Your task to perform on an android device: delete the emails in spam in the gmail app Image 0: 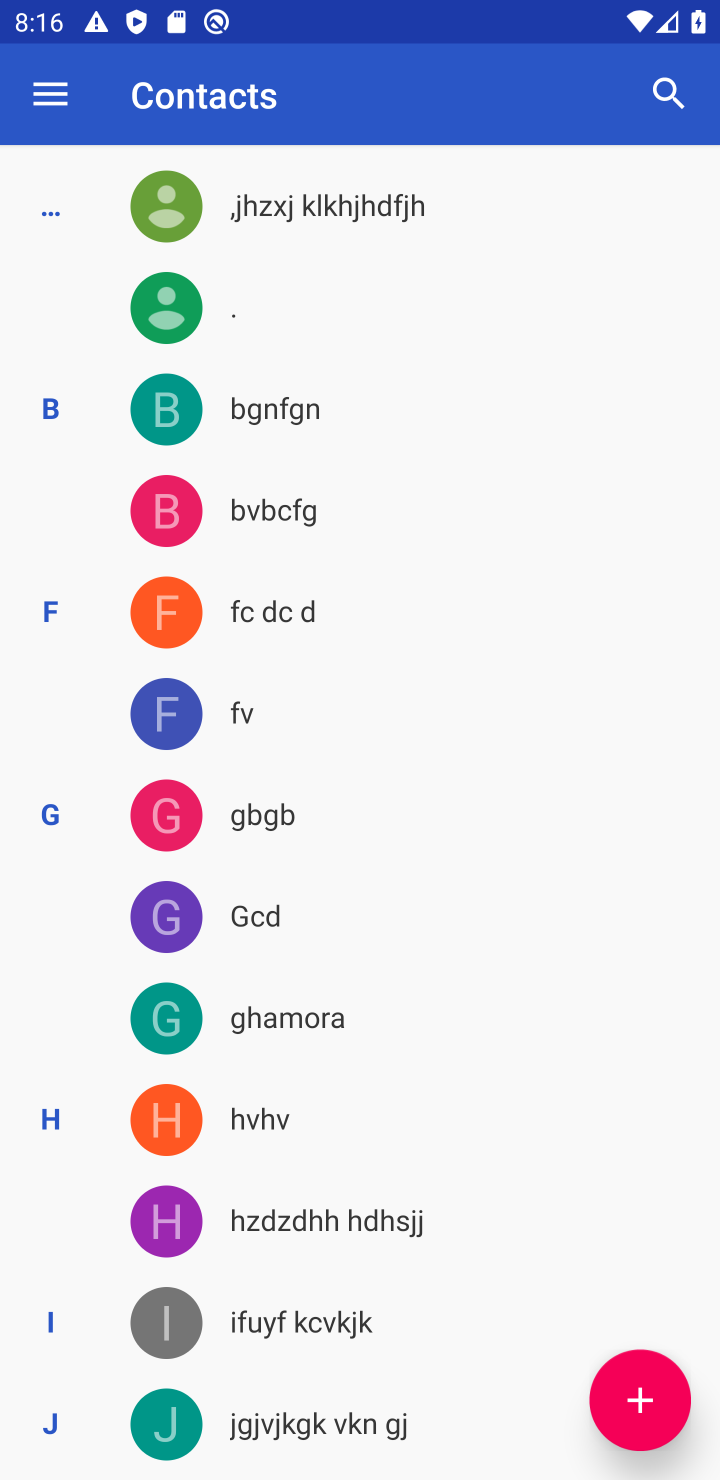
Step 0: press home button
Your task to perform on an android device: delete the emails in spam in the gmail app Image 1: 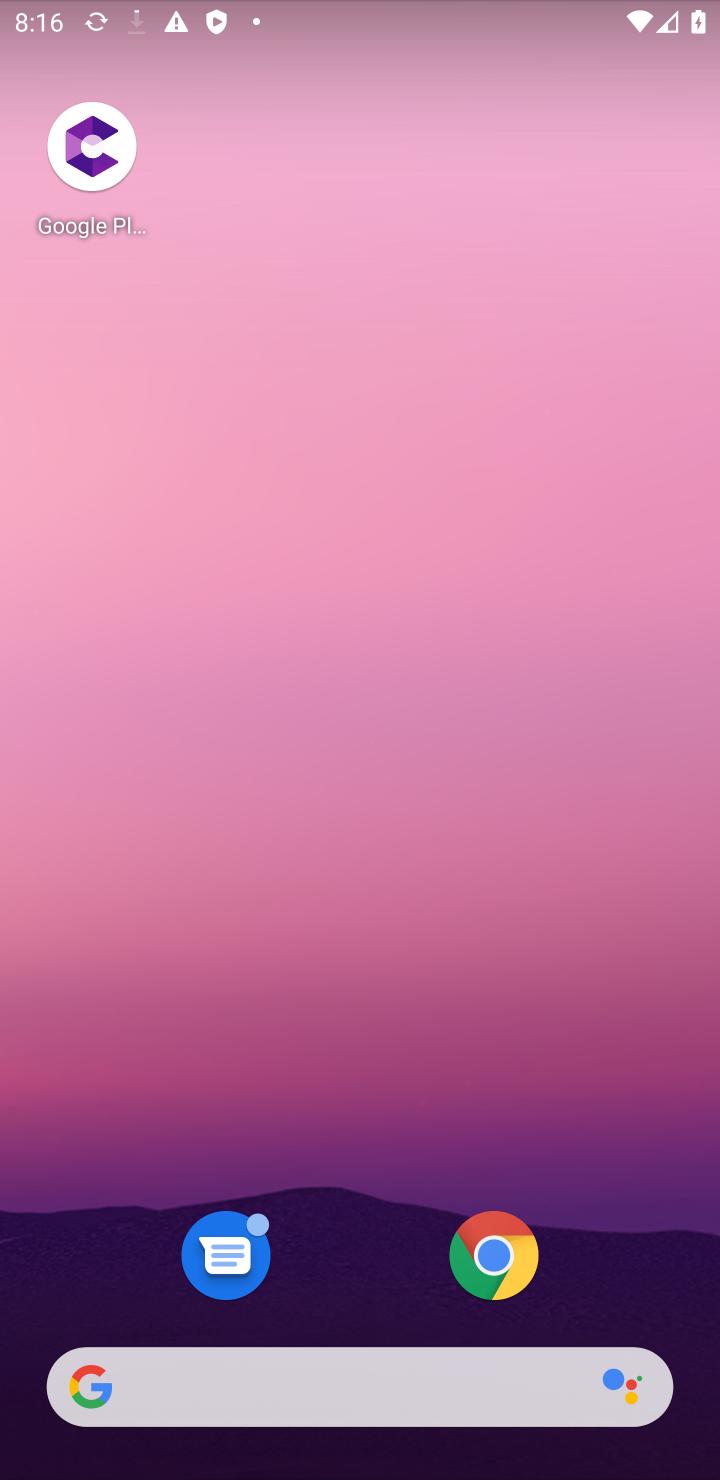
Step 1: drag from (357, 1307) to (393, 144)
Your task to perform on an android device: delete the emails in spam in the gmail app Image 2: 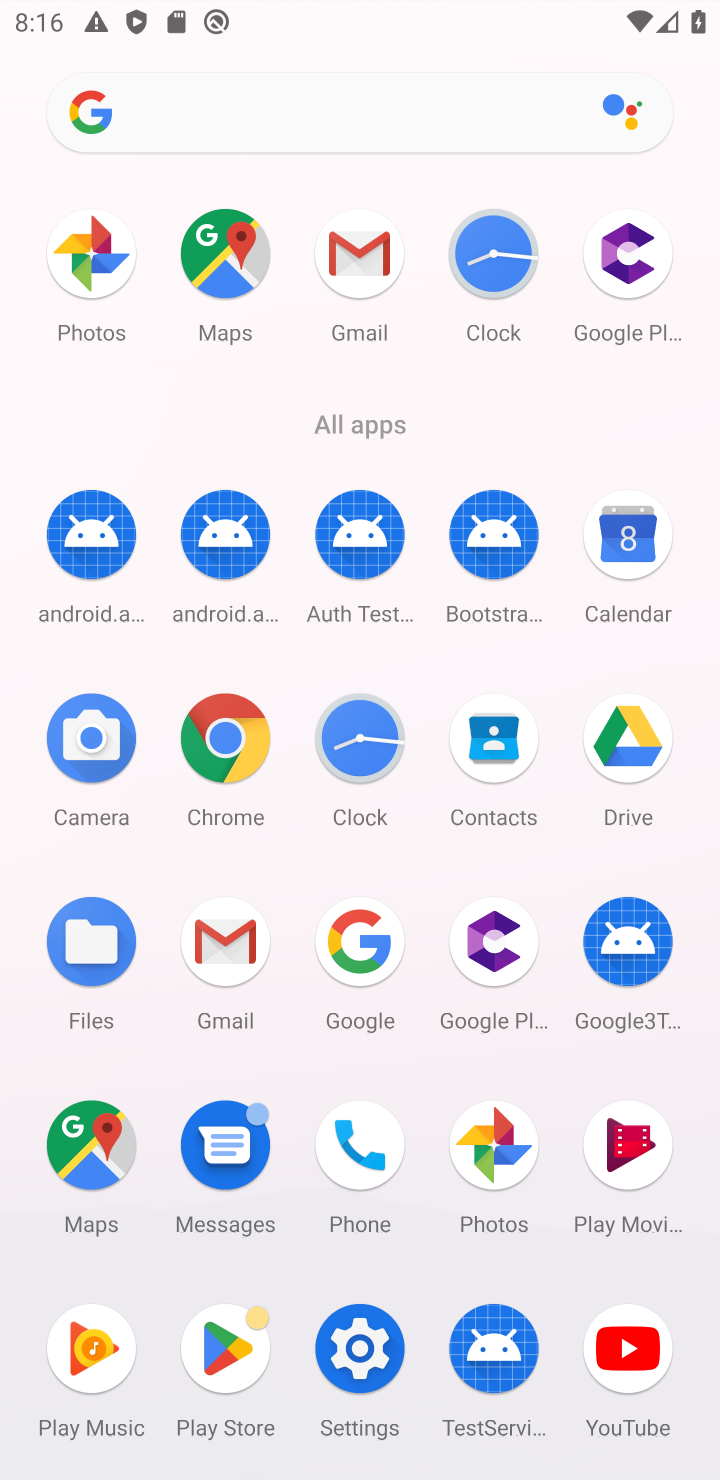
Step 2: click (222, 941)
Your task to perform on an android device: delete the emails in spam in the gmail app Image 3: 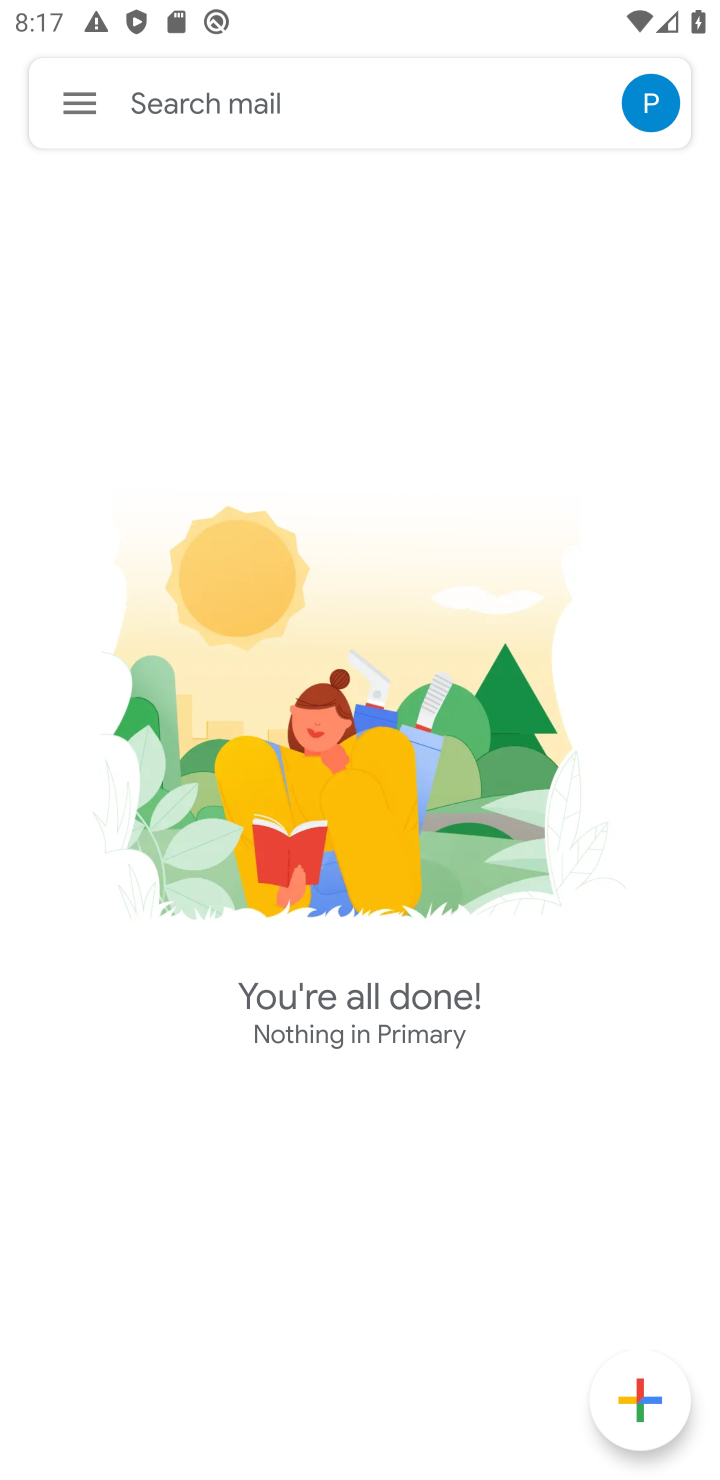
Step 3: click (87, 108)
Your task to perform on an android device: delete the emails in spam in the gmail app Image 4: 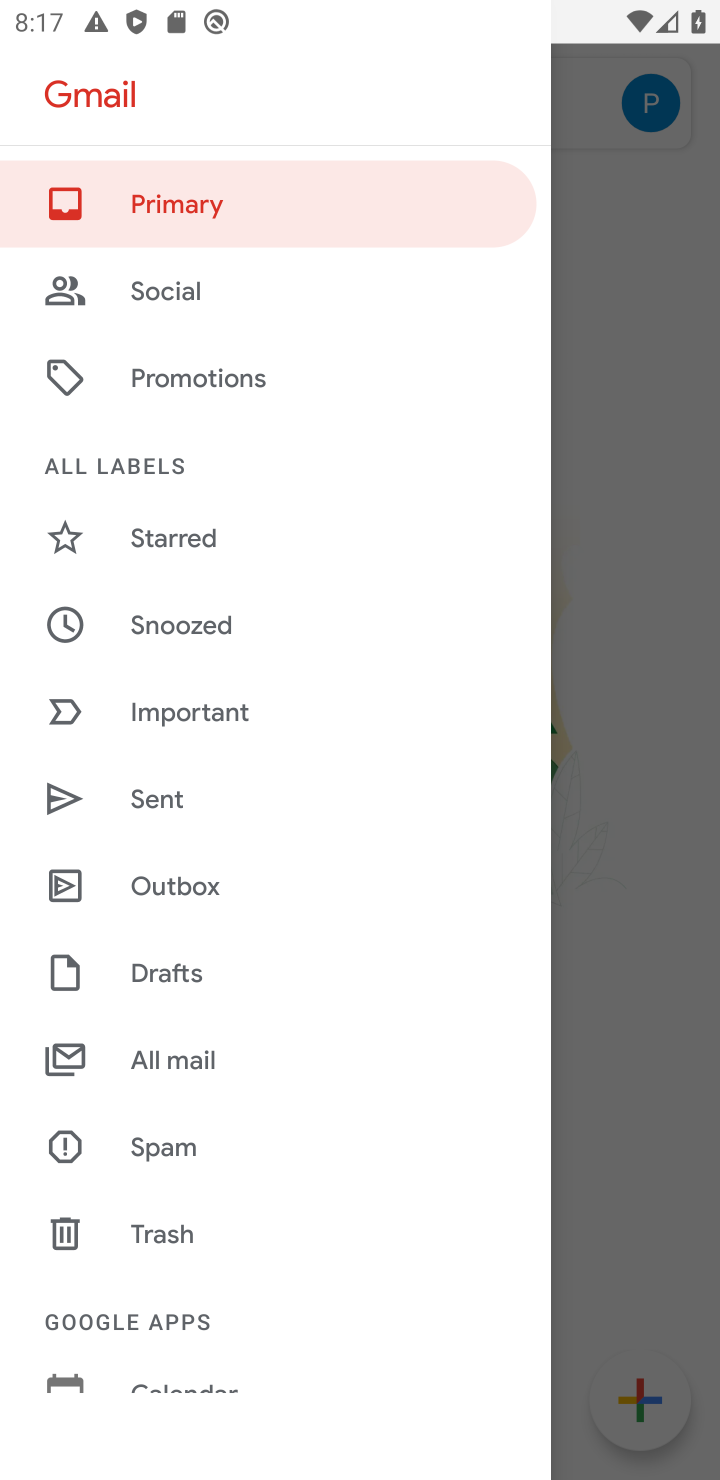
Step 4: click (189, 1156)
Your task to perform on an android device: delete the emails in spam in the gmail app Image 5: 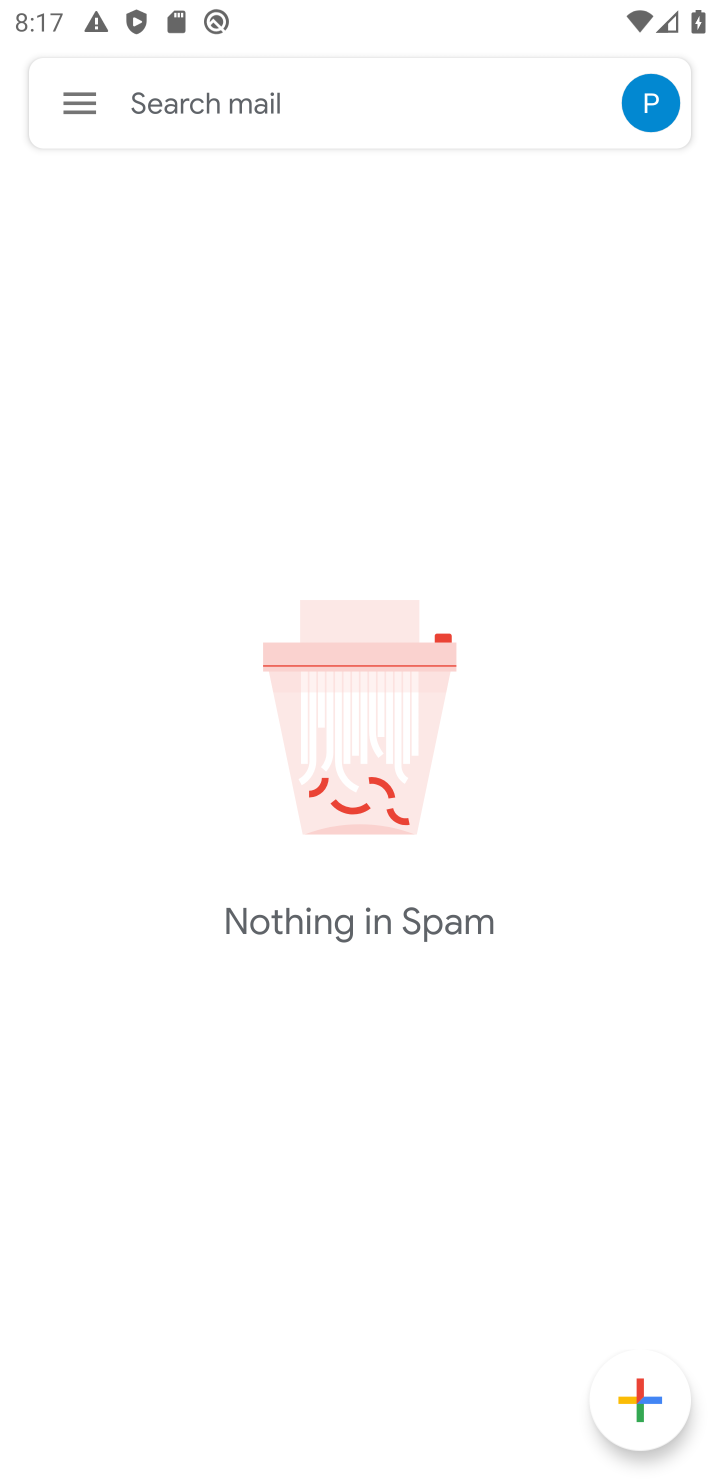
Step 5: task complete